Your task to perform on an android device: Open Youtube and go to "Your channel" Image 0: 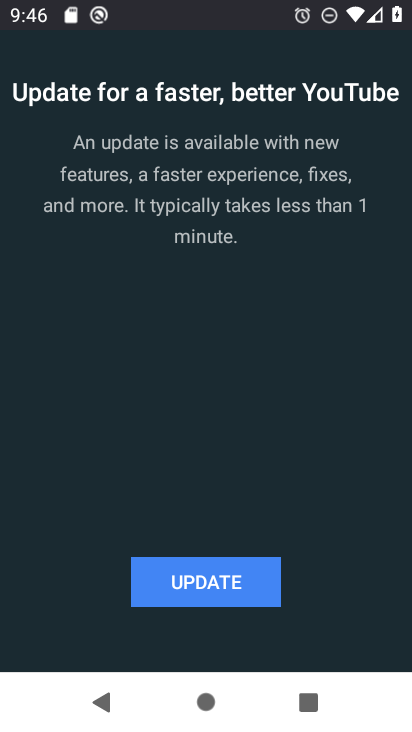
Step 0: press home button
Your task to perform on an android device: Open Youtube and go to "Your channel" Image 1: 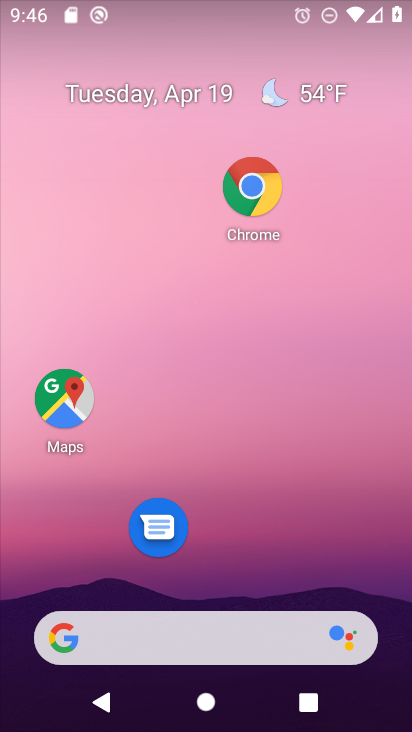
Step 1: drag from (257, 584) to (286, 219)
Your task to perform on an android device: Open Youtube and go to "Your channel" Image 2: 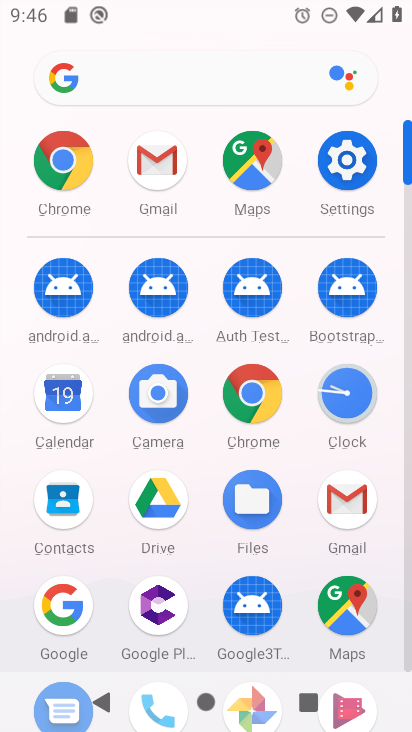
Step 2: drag from (252, 654) to (344, 159)
Your task to perform on an android device: Open Youtube and go to "Your channel" Image 3: 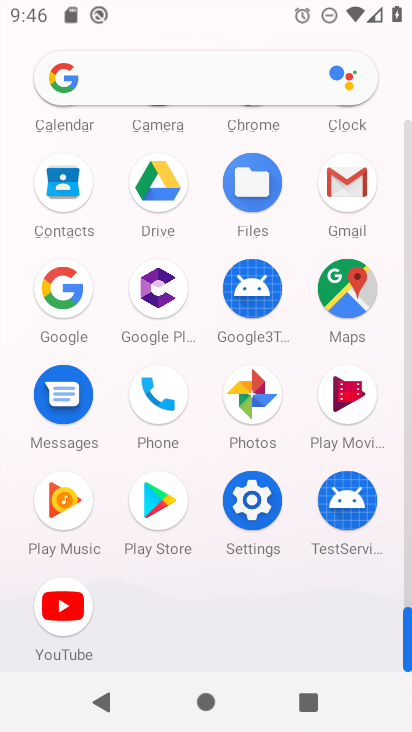
Step 3: click (51, 612)
Your task to perform on an android device: Open Youtube and go to "Your channel" Image 4: 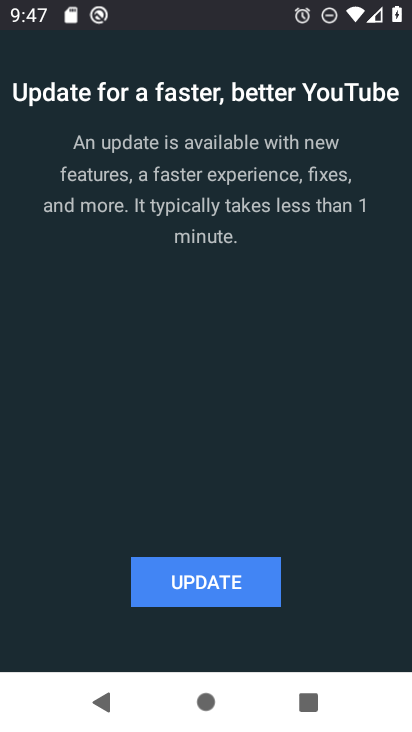
Step 4: task complete